Your task to perform on an android device: Open Yahoo.com Image 0: 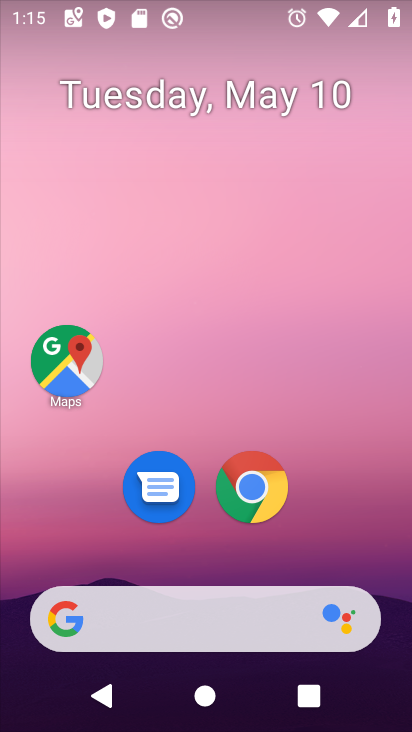
Step 0: click (247, 477)
Your task to perform on an android device: Open Yahoo.com Image 1: 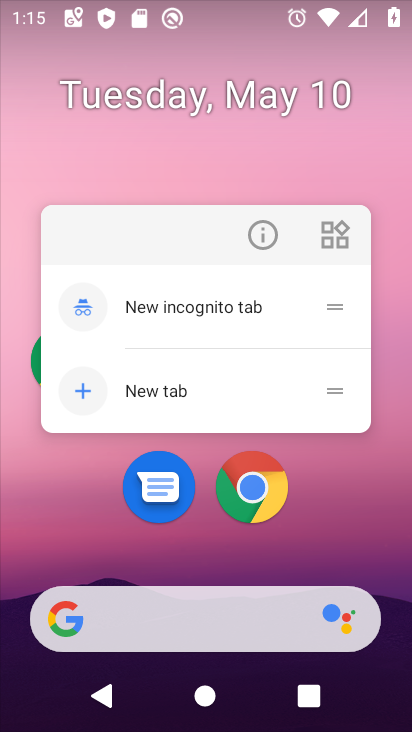
Step 1: click (247, 477)
Your task to perform on an android device: Open Yahoo.com Image 2: 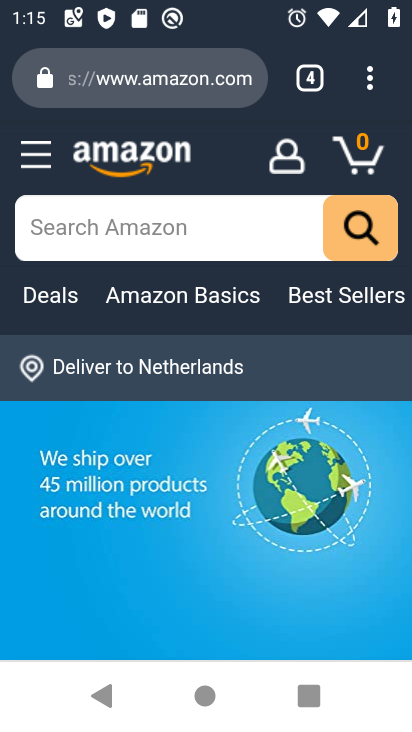
Step 2: click (247, 108)
Your task to perform on an android device: Open Yahoo.com Image 3: 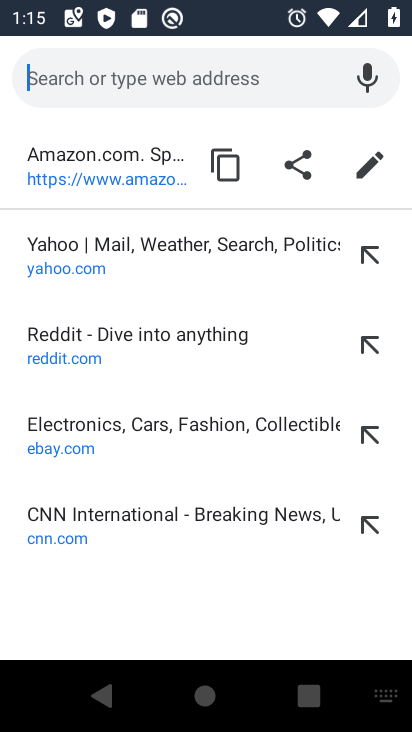
Step 3: click (192, 261)
Your task to perform on an android device: Open Yahoo.com Image 4: 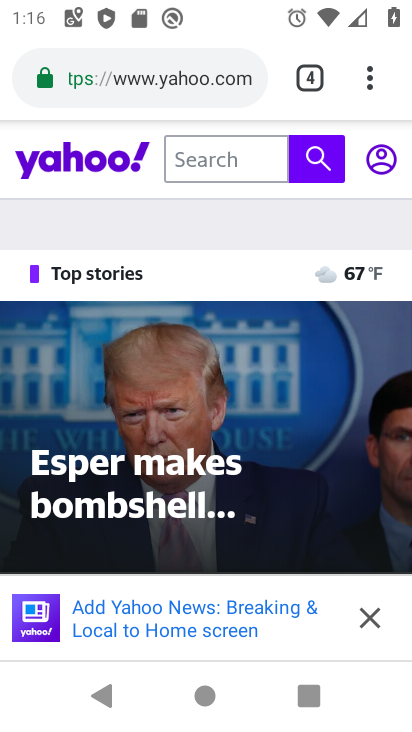
Step 4: task complete